Your task to perform on an android device: Open Maps and search for coffee Image 0: 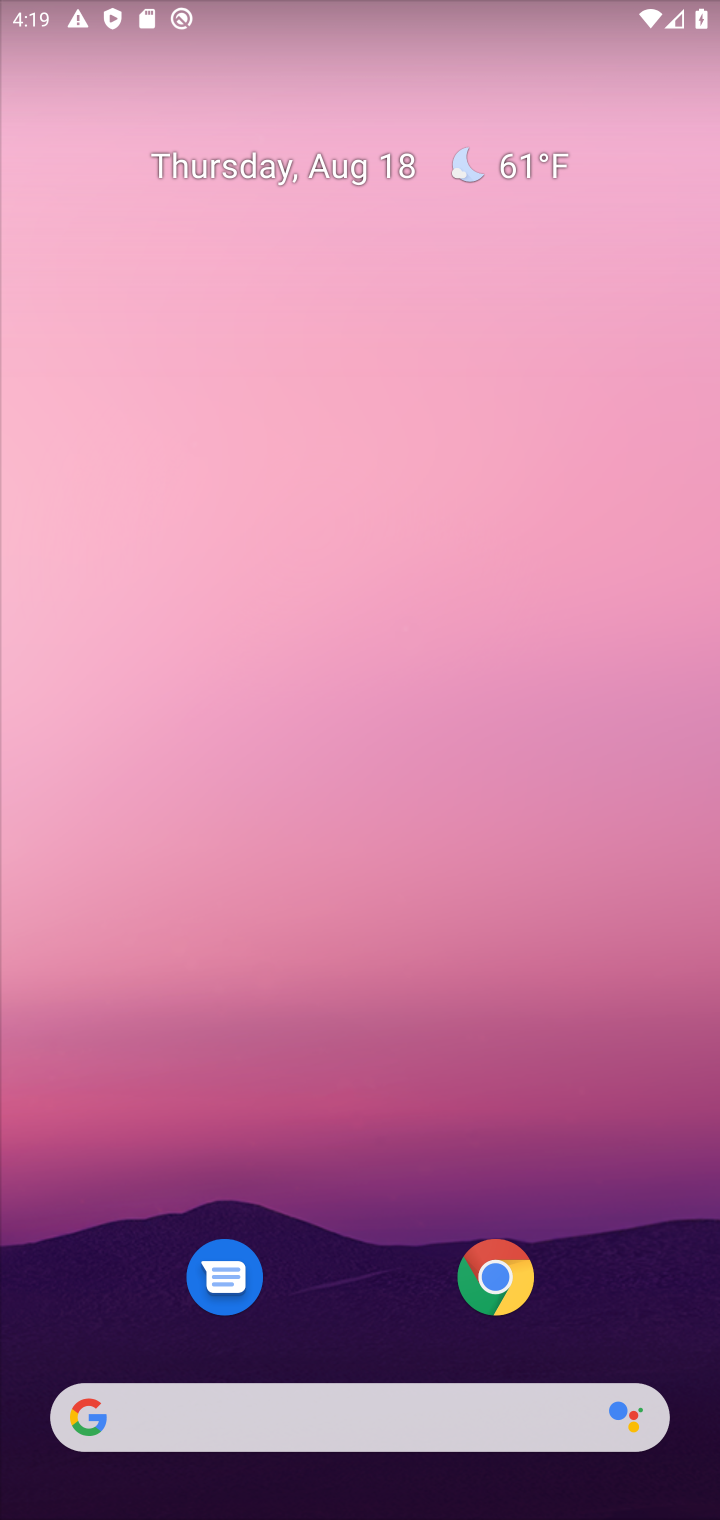
Step 0: drag from (337, 1133) to (373, 678)
Your task to perform on an android device: Open Maps and search for coffee Image 1: 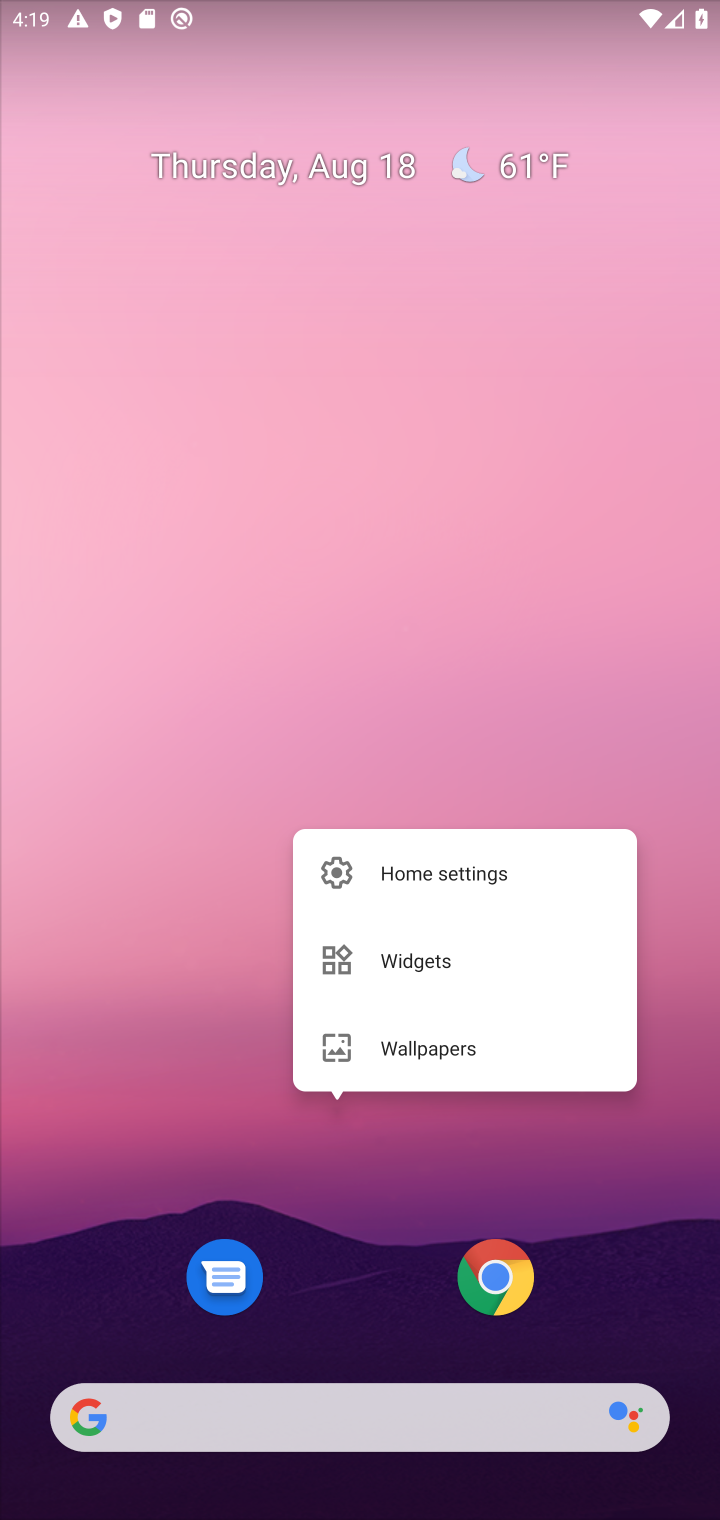
Step 1: task complete